Your task to perform on an android device: Open notification settings Image 0: 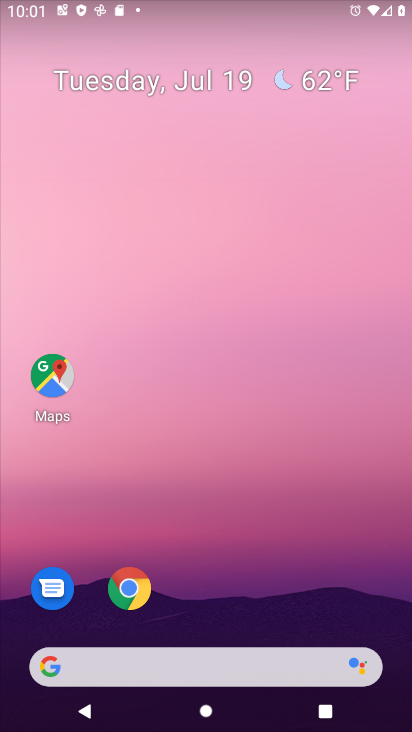
Step 0: drag from (287, 591) to (292, 111)
Your task to perform on an android device: Open notification settings Image 1: 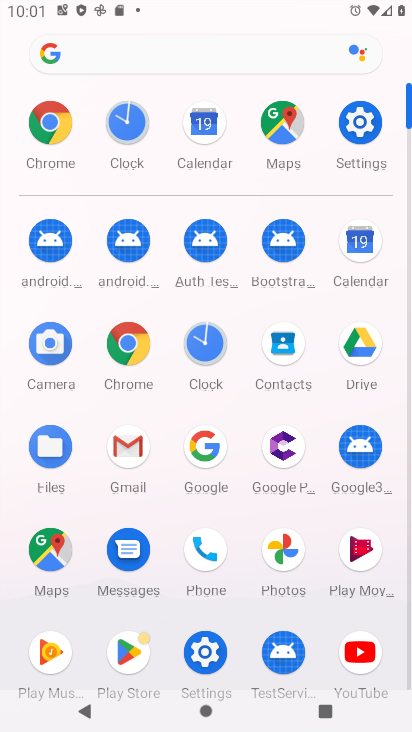
Step 1: click (378, 133)
Your task to perform on an android device: Open notification settings Image 2: 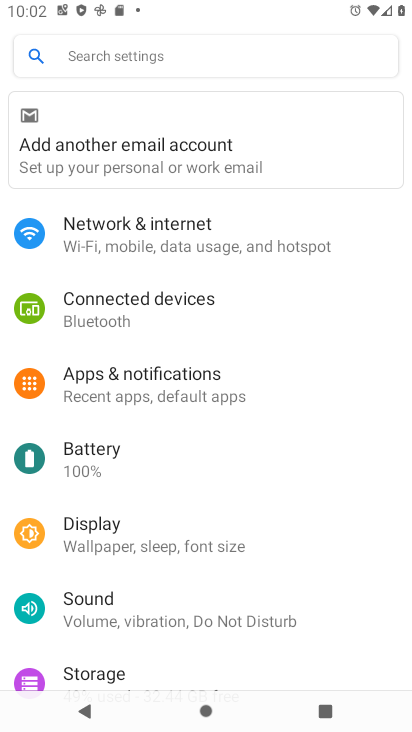
Step 2: click (141, 384)
Your task to perform on an android device: Open notification settings Image 3: 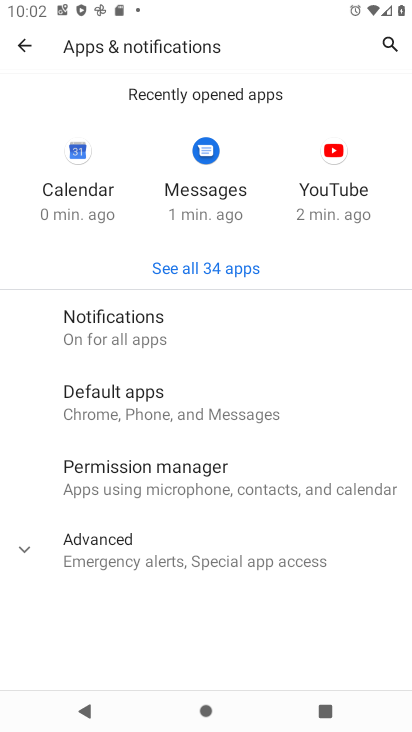
Step 3: click (143, 326)
Your task to perform on an android device: Open notification settings Image 4: 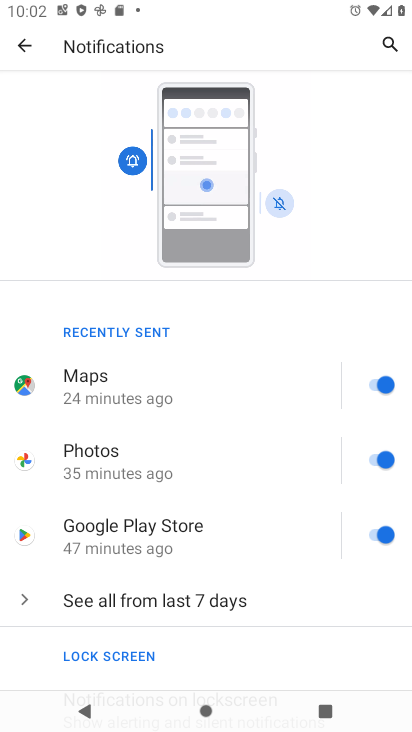
Step 4: task complete